Your task to perform on an android device: turn on the 12-hour format for clock Image 0: 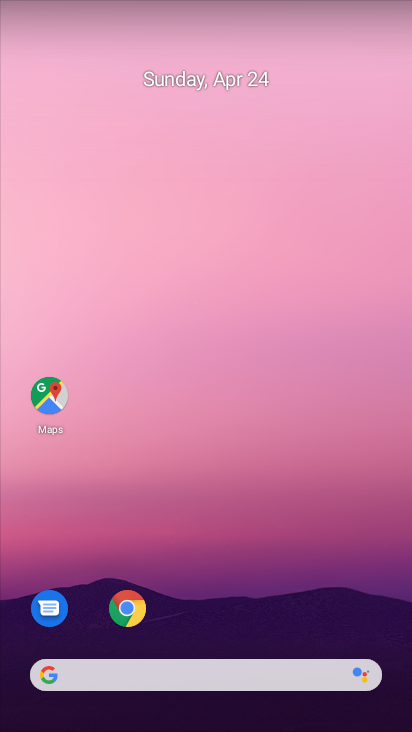
Step 0: drag from (271, 623) to (328, 94)
Your task to perform on an android device: turn on the 12-hour format for clock Image 1: 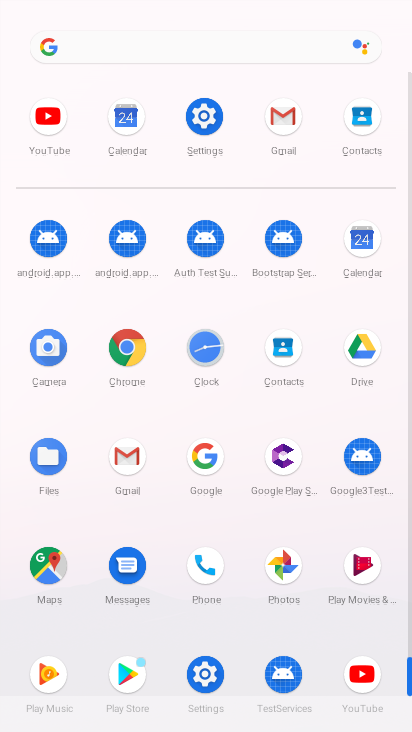
Step 1: click (212, 338)
Your task to perform on an android device: turn on the 12-hour format for clock Image 2: 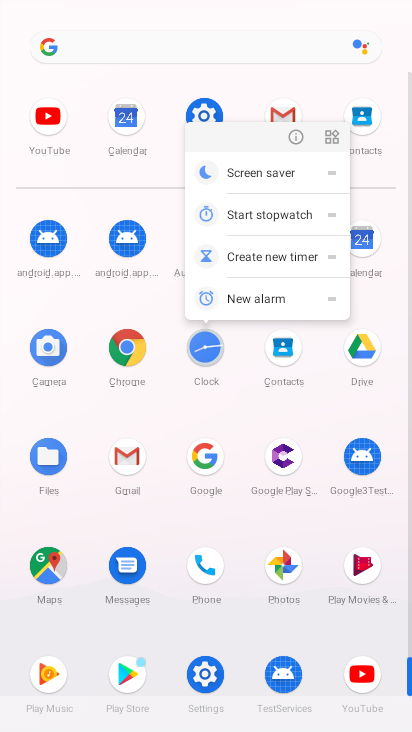
Step 2: click (208, 349)
Your task to perform on an android device: turn on the 12-hour format for clock Image 3: 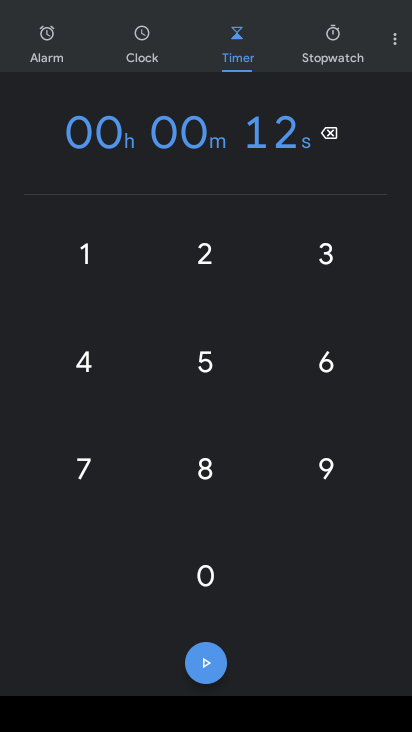
Step 3: click (397, 39)
Your task to perform on an android device: turn on the 12-hour format for clock Image 4: 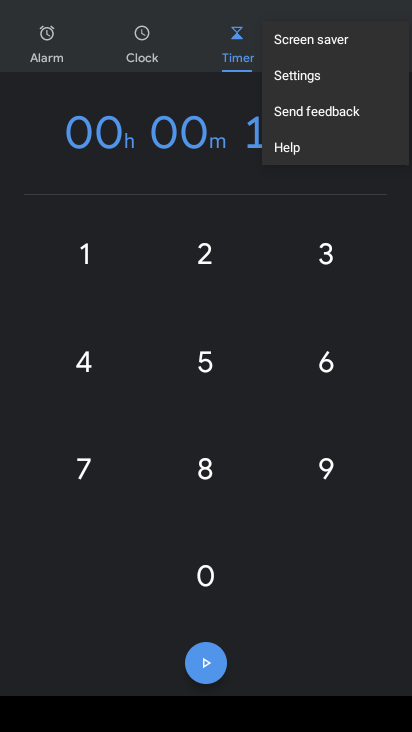
Step 4: click (355, 86)
Your task to perform on an android device: turn on the 12-hour format for clock Image 5: 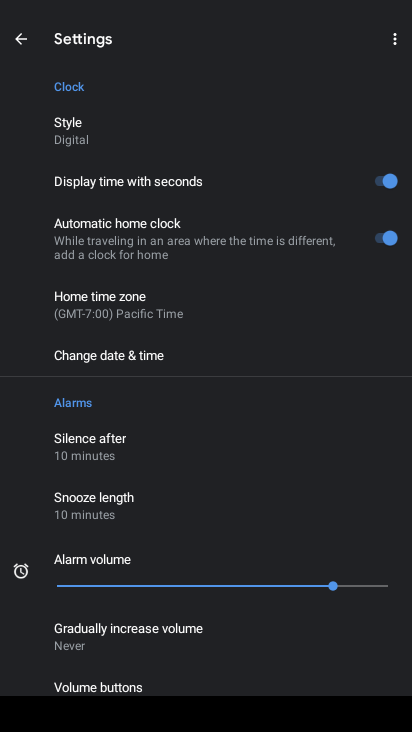
Step 5: click (257, 350)
Your task to perform on an android device: turn on the 12-hour format for clock Image 6: 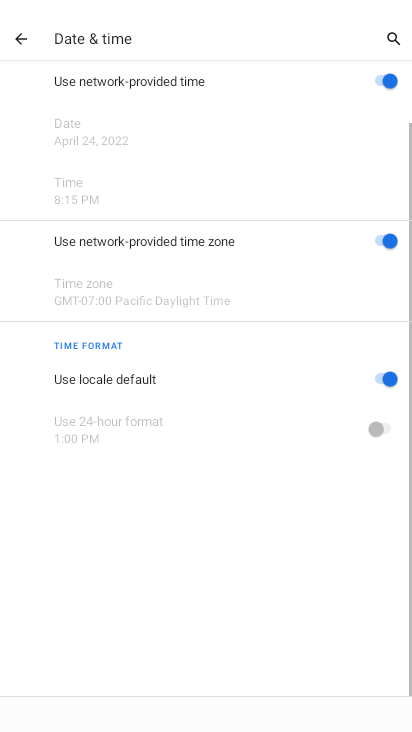
Step 6: task complete